Your task to perform on an android device: Go to CNN.com Image 0: 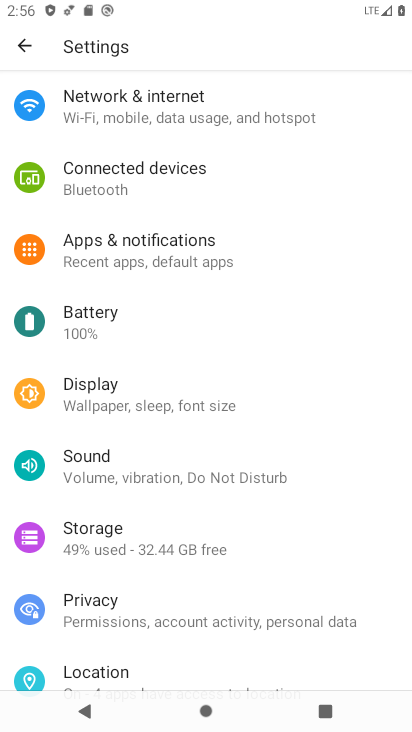
Step 0: press home button
Your task to perform on an android device: Go to CNN.com Image 1: 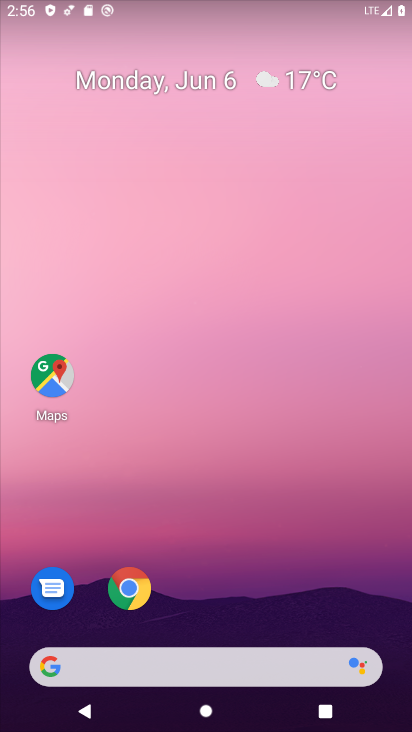
Step 1: click (143, 609)
Your task to perform on an android device: Go to CNN.com Image 2: 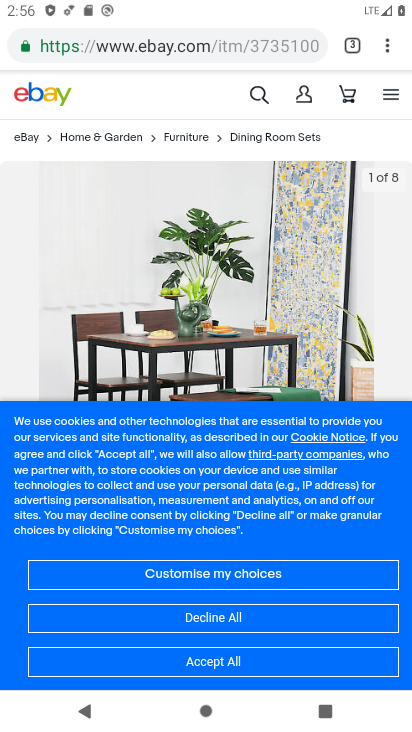
Step 2: click (247, 43)
Your task to perform on an android device: Go to CNN.com Image 3: 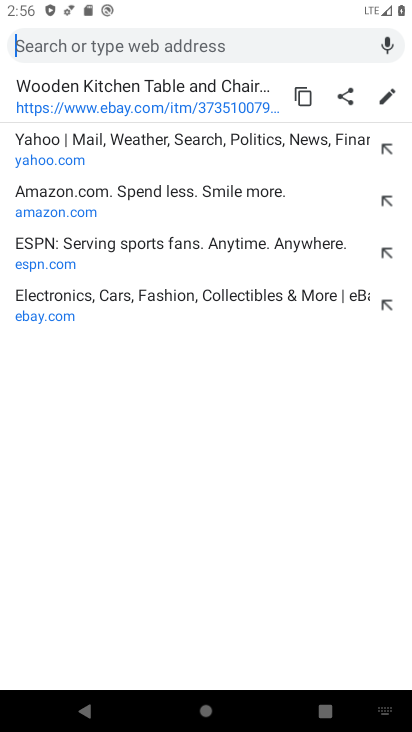
Step 3: type "cnn.com"
Your task to perform on an android device: Go to CNN.com Image 4: 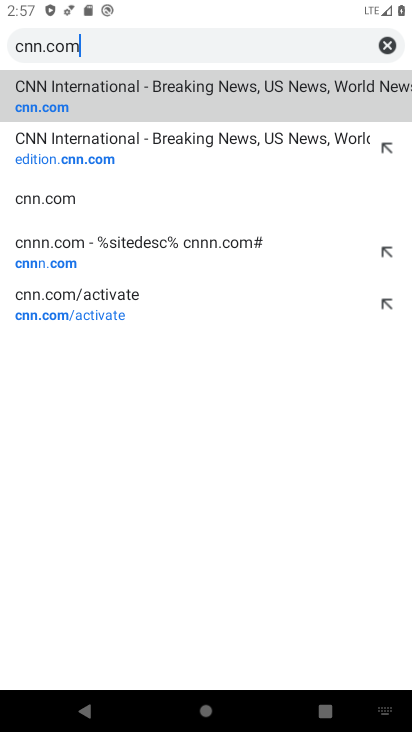
Step 4: click (310, 87)
Your task to perform on an android device: Go to CNN.com Image 5: 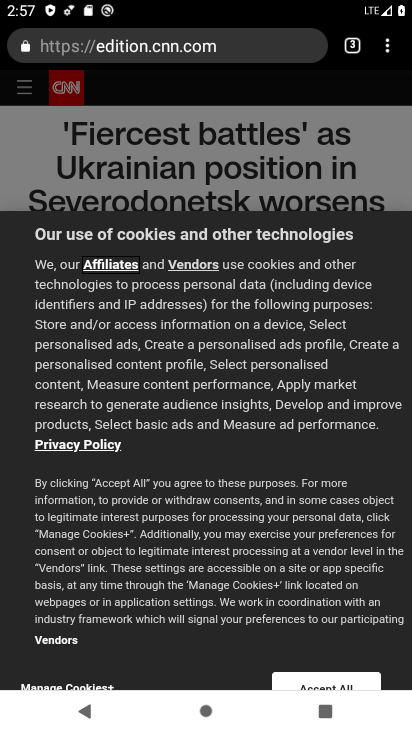
Step 5: task complete